Your task to perform on an android device: open chrome and create a bookmark for the current page Image 0: 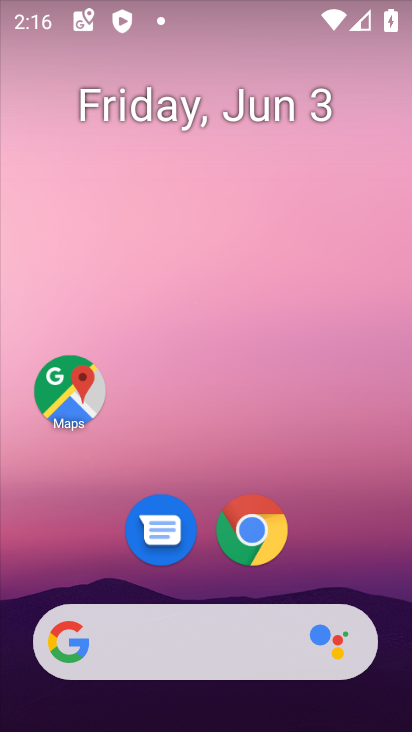
Step 0: click (241, 544)
Your task to perform on an android device: open chrome and create a bookmark for the current page Image 1: 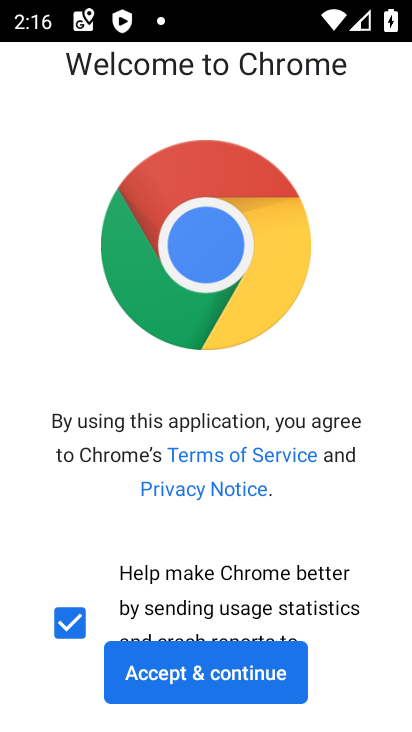
Step 1: click (213, 679)
Your task to perform on an android device: open chrome and create a bookmark for the current page Image 2: 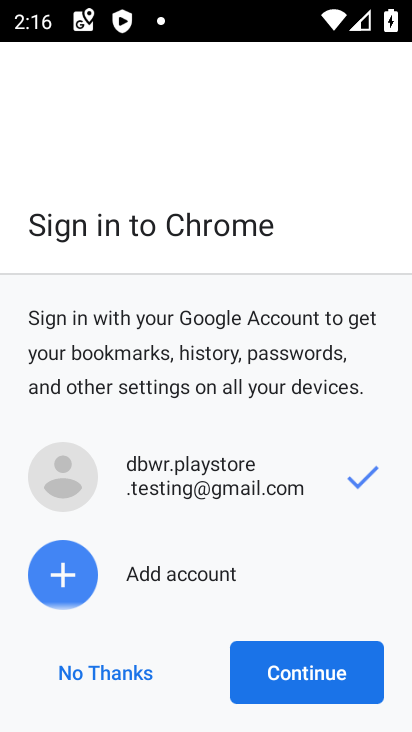
Step 2: click (311, 667)
Your task to perform on an android device: open chrome and create a bookmark for the current page Image 3: 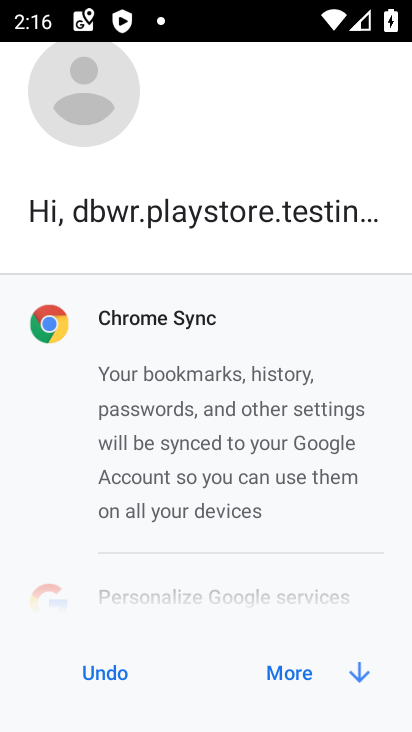
Step 3: click (356, 678)
Your task to perform on an android device: open chrome and create a bookmark for the current page Image 4: 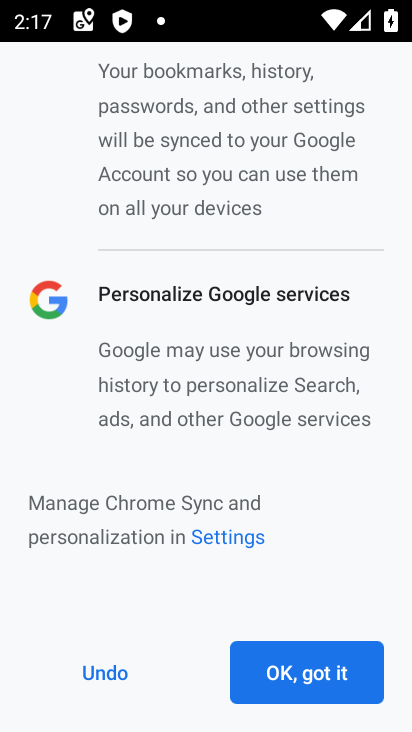
Step 4: click (311, 673)
Your task to perform on an android device: open chrome and create a bookmark for the current page Image 5: 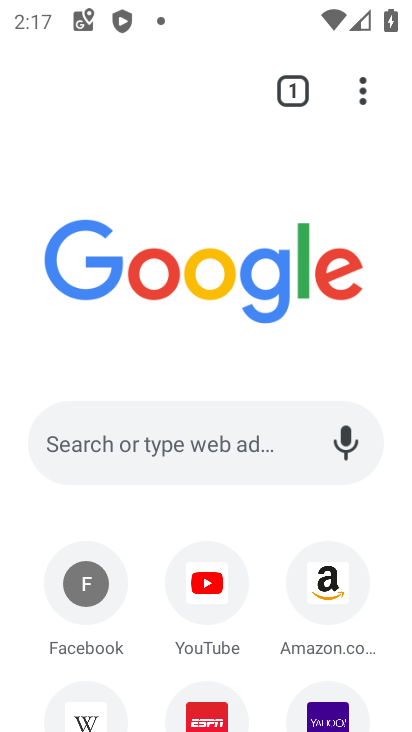
Step 5: click (362, 90)
Your task to perform on an android device: open chrome and create a bookmark for the current page Image 6: 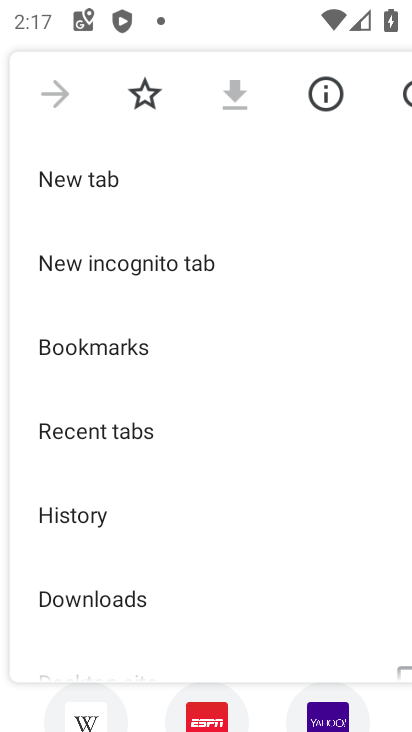
Step 6: click (148, 90)
Your task to perform on an android device: open chrome and create a bookmark for the current page Image 7: 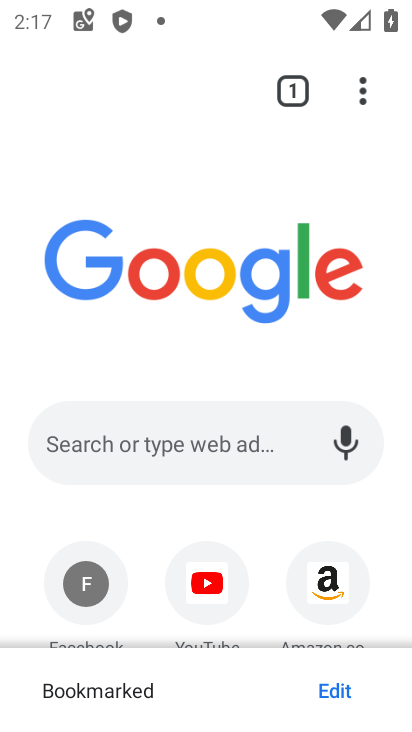
Step 7: task complete